Your task to perform on an android device: Open Reddit.com Image 0: 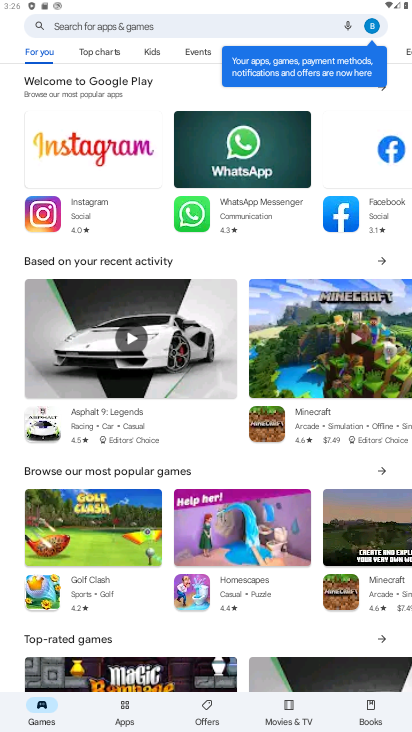
Step 0: press home button
Your task to perform on an android device: Open Reddit.com Image 1: 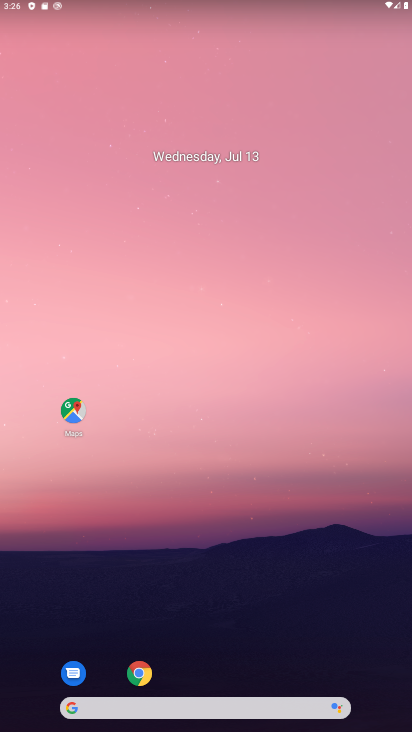
Step 1: click (140, 674)
Your task to perform on an android device: Open Reddit.com Image 2: 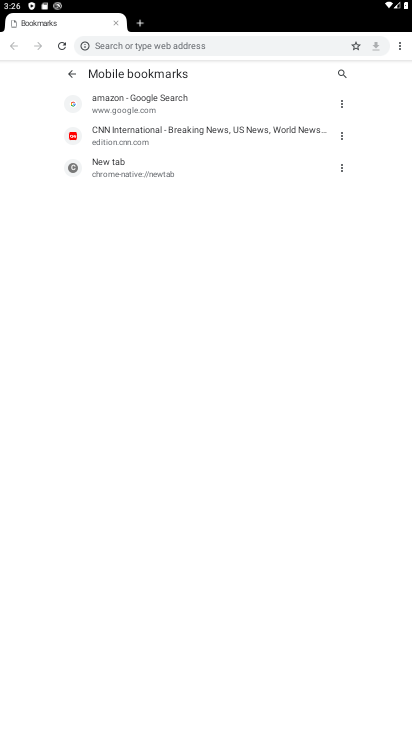
Step 2: click (243, 38)
Your task to perform on an android device: Open Reddit.com Image 3: 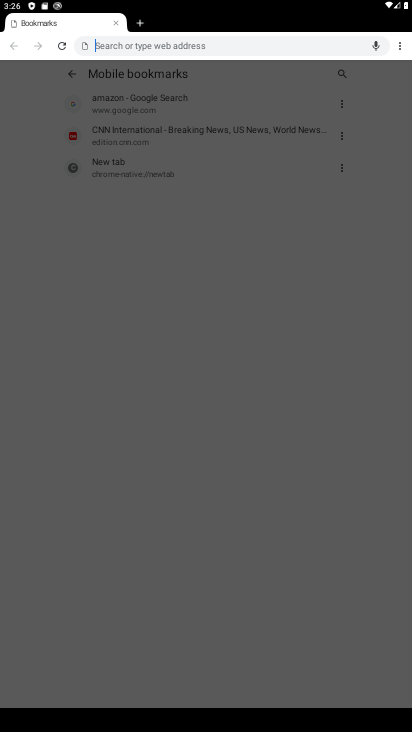
Step 3: type "Reddit.com"
Your task to perform on an android device: Open Reddit.com Image 4: 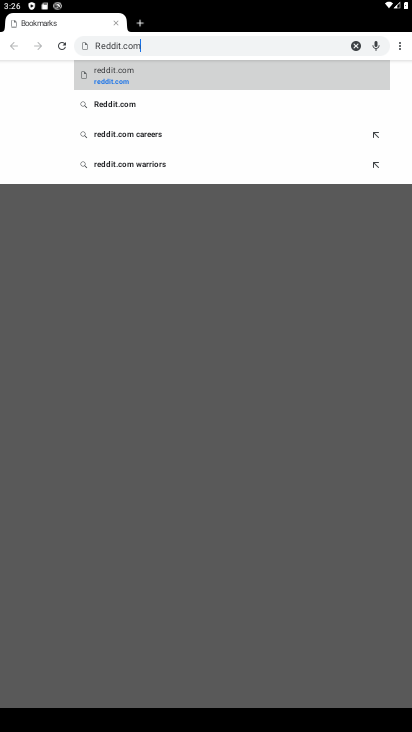
Step 4: click (126, 108)
Your task to perform on an android device: Open Reddit.com Image 5: 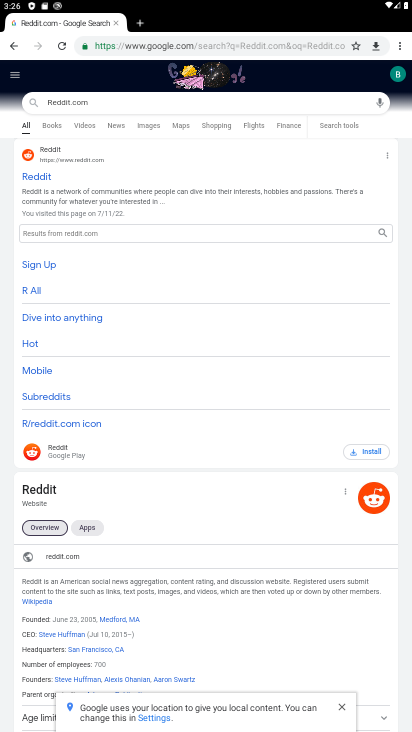
Step 5: click (46, 178)
Your task to perform on an android device: Open Reddit.com Image 6: 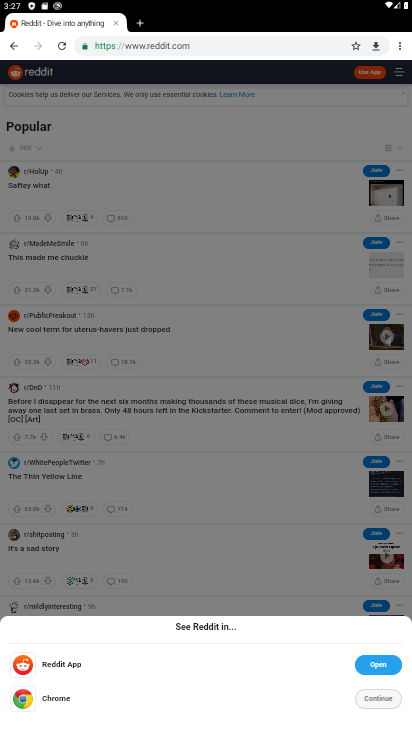
Step 6: click (373, 700)
Your task to perform on an android device: Open Reddit.com Image 7: 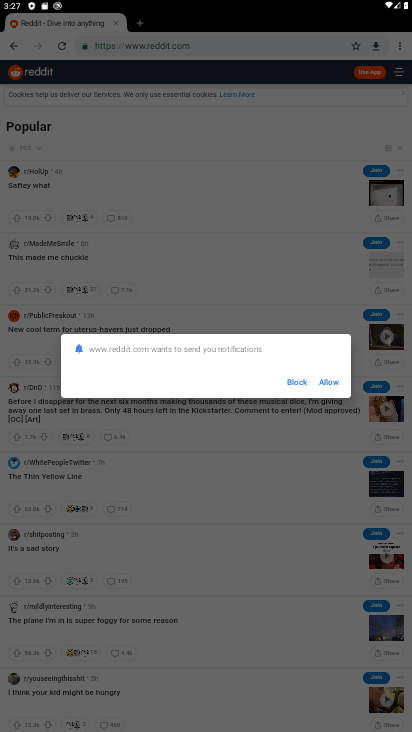
Step 7: click (329, 382)
Your task to perform on an android device: Open Reddit.com Image 8: 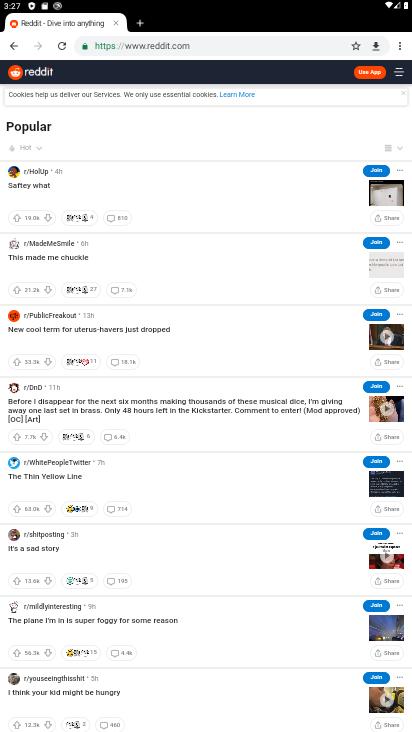
Step 8: task complete